Your task to perform on an android device: turn off notifications settings in the gmail app Image 0: 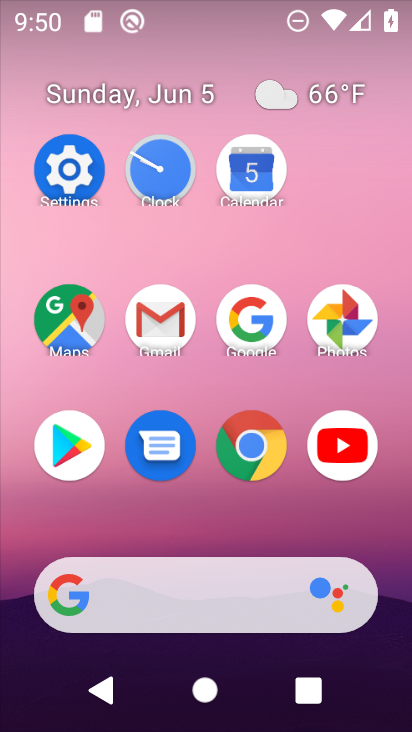
Step 0: click (162, 314)
Your task to perform on an android device: turn off notifications settings in the gmail app Image 1: 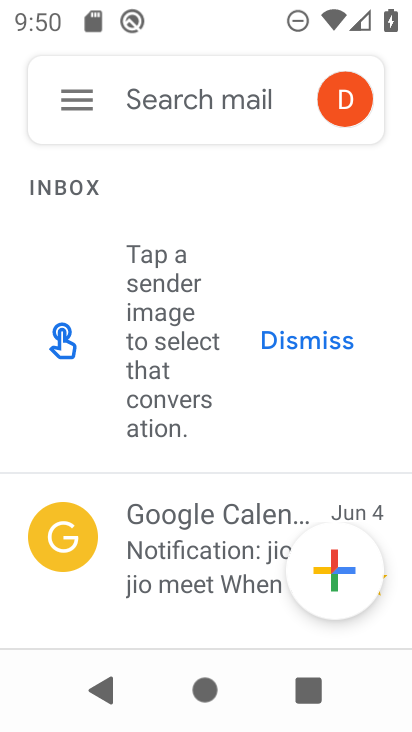
Step 1: click (63, 95)
Your task to perform on an android device: turn off notifications settings in the gmail app Image 2: 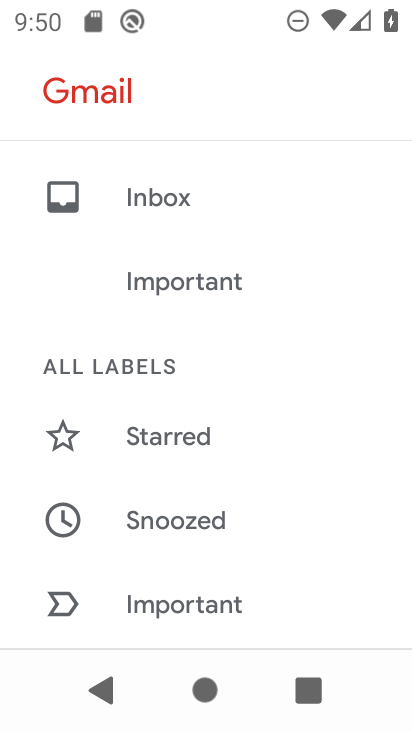
Step 2: drag from (235, 505) to (295, 136)
Your task to perform on an android device: turn off notifications settings in the gmail app Image 3: 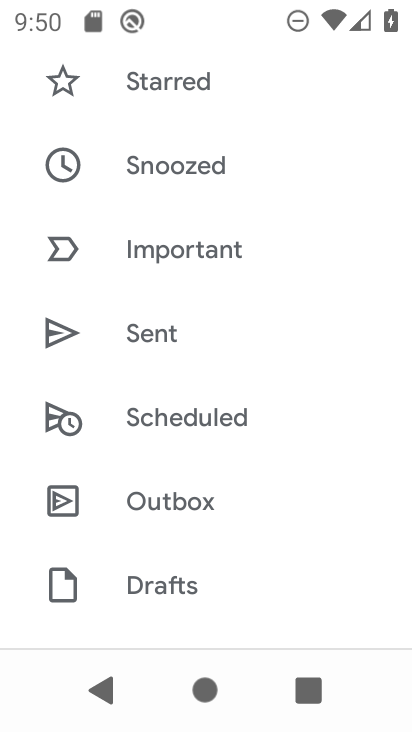
Step 3: drag from (245, 529) to (241, 180)
Your task to perform on an android device: turn off notifications settings in the gmail app Image 4: 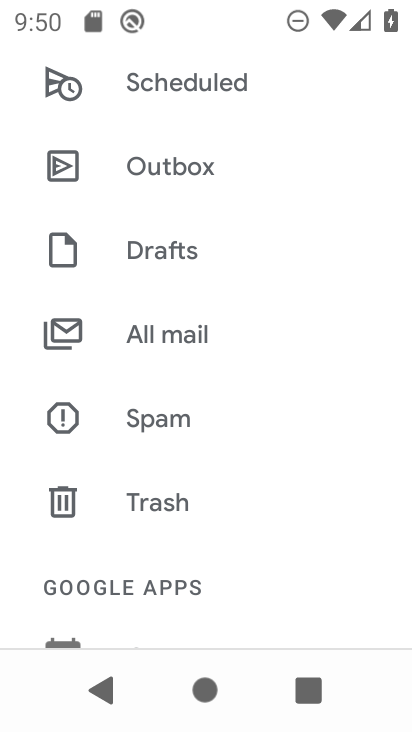
Step 4: drag from (233, 527) to (218, 173)
Your task to perform on an android device: turn off notifications settings in the gmail app Image 5: 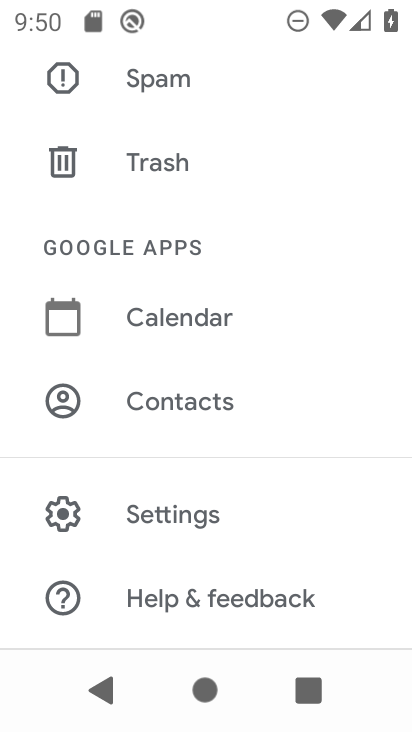
Step 5: click (183, 515)
Your task to perform on an android device: turn off notifications settings in the gmail app Image 6: 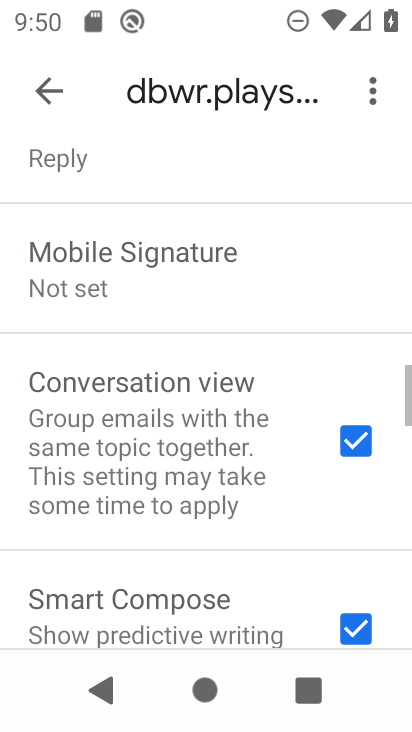
Step 6: drag from (183, 476) to (178, 111)
Your task to perform on an android device: turn off notifications settings in the gmail app Image 7: 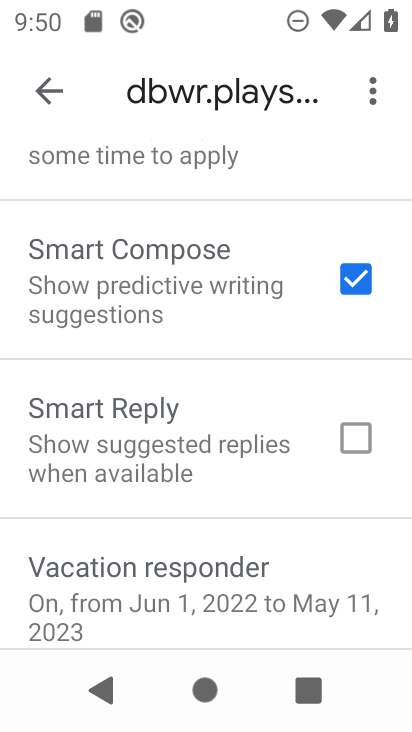
Step 7: drag from (225, 479) to (241, 132)
Your task to perform on an android device: turn off notifications settings in the gmail app Image 8: 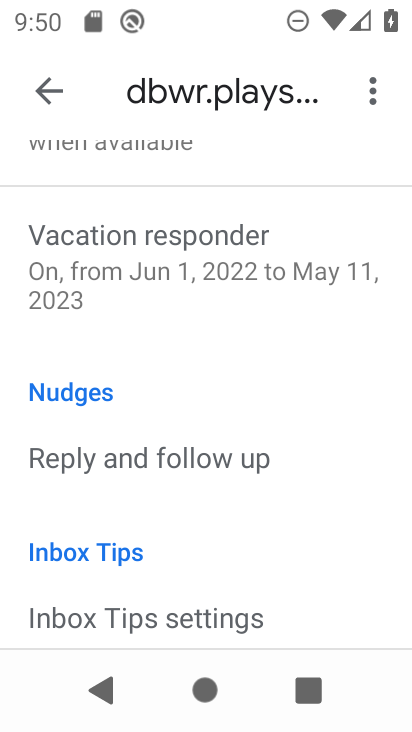
Step 8: drag from (296, 483) to (259, 107)
Your task to perform on an android device: turn off notifications settings in the gmail app Image 9: 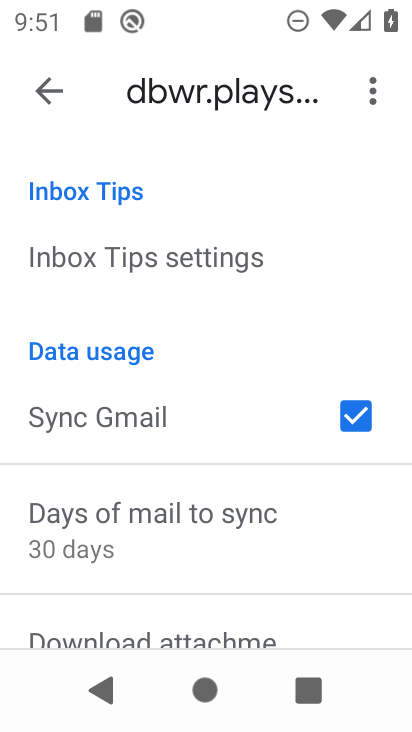
Step 9: drag from (264, 563) to (223, 233)
Your task to perform on an android device: turn off notifications settings in the gmail app Image 10: 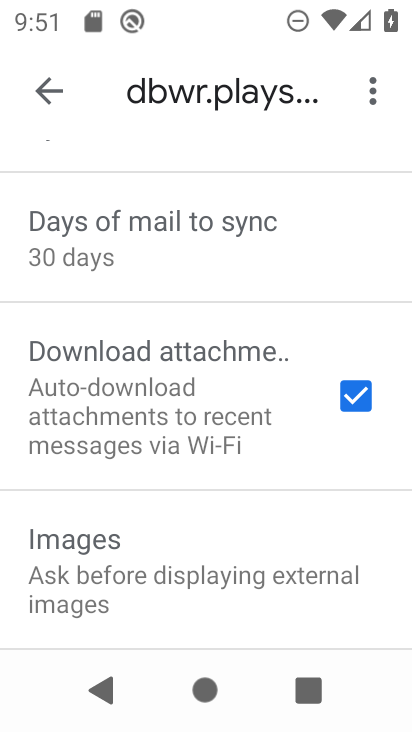
Step 10: drag from (245, 510) to (218, 215)
Your task to perform on an android device: turn off notifications settings in the gmail app Image 11: 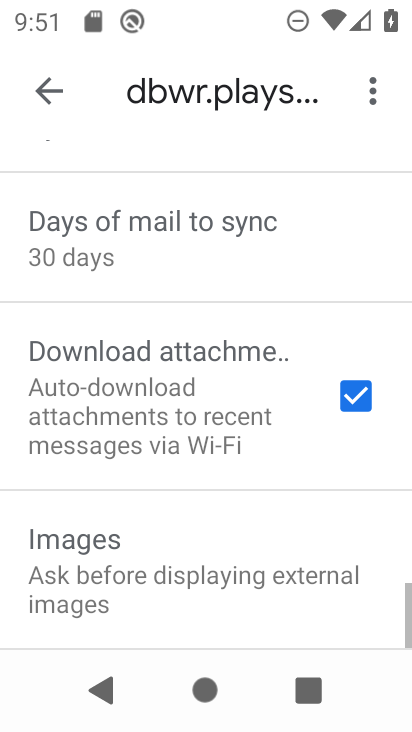
Step 11: drag from (238, 544) to (227, 197)
Your task to perform on an android device: turn off notifications settings in the gmail app Image 12: 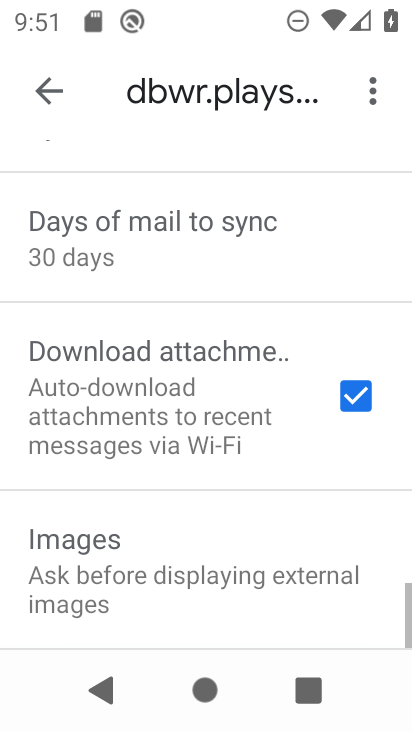
Step 12: drag from (233, 185) to (250, 574)
Your task to perform on an android device: turn off notifications settings in the gmail app Image 13: 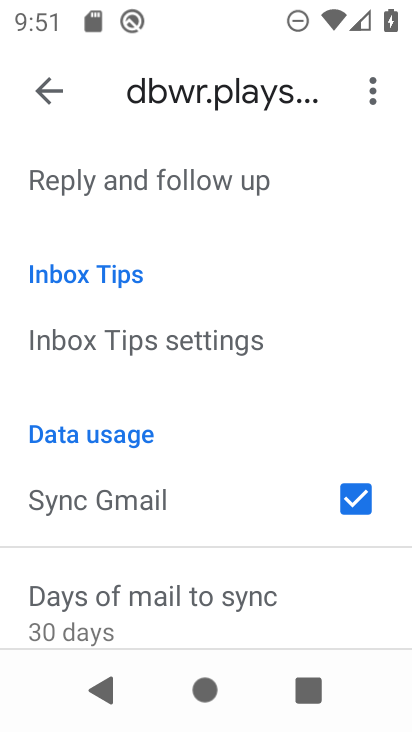
Step 13: drag from (255, 321) to (239, 662)
Your task to perform on an android device: turn off notifications settings in the gmail app Image 14: 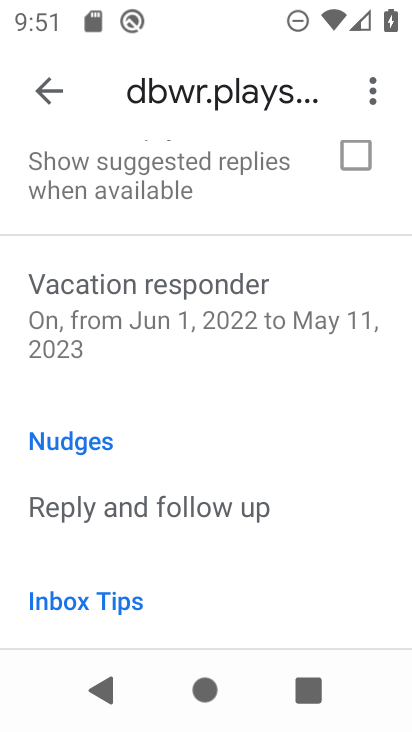
Step 14: drag from (203, 204) to (220, 579)
Your task to perform on an android device: turn off notifications settings in the gmail app Image 15: 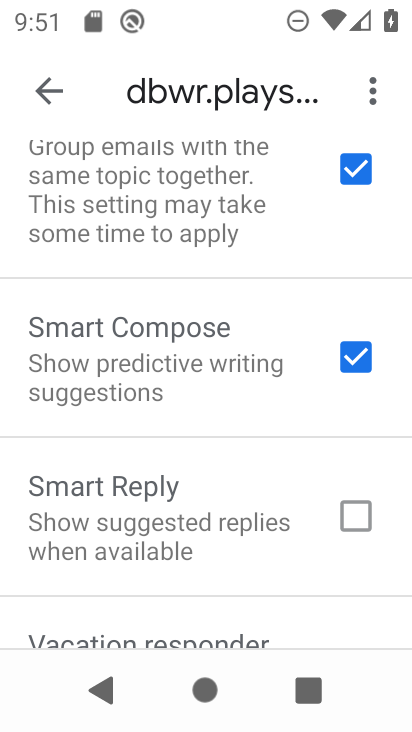
Step 15: drag from (225, 241) to (281, 611)
Your task to perform on an android device: turn off notifications settings in the gmail app Image 16: 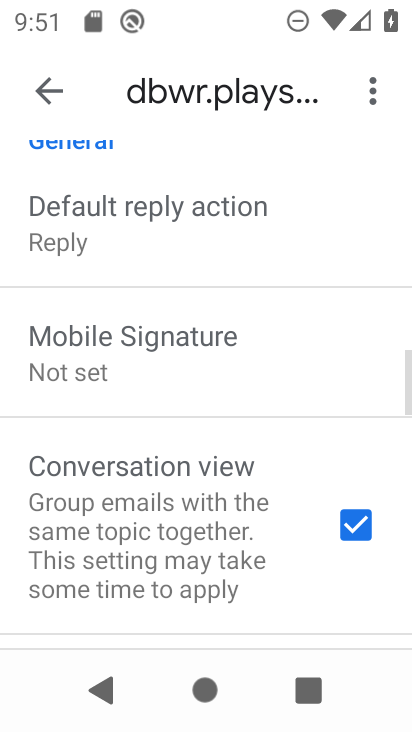
Step 16: drag from (274, 596) to (267, 639)
Your task to perform on an android device: turn off notifications settings in the gmail app Image 17: 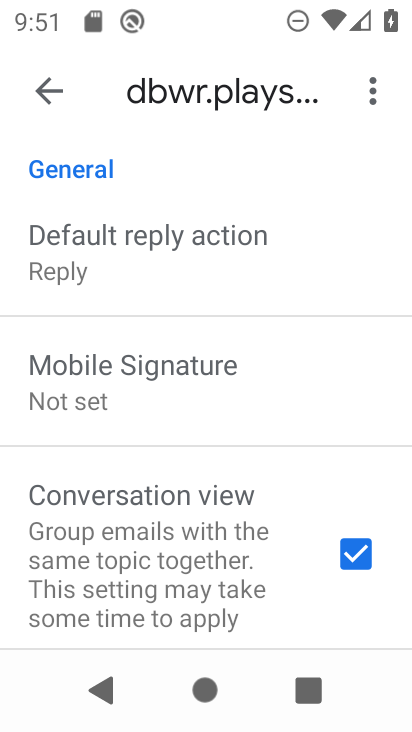
Step 17: drag from (219, 197) to (248, 575)
Your task to perform on an android device: turn off notifications settings in the gmail app Image 18: 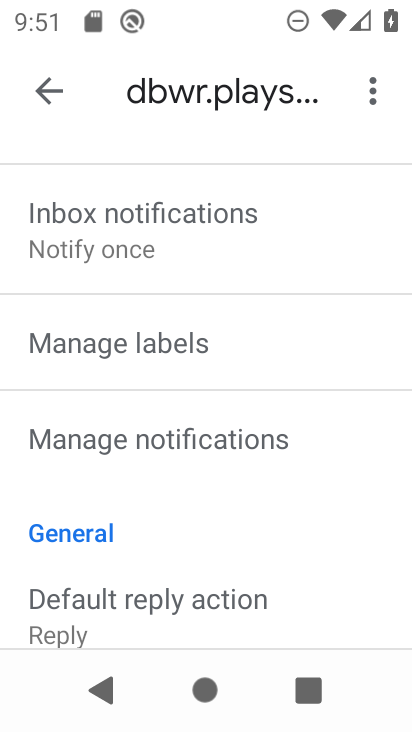
Step 18: click (215, 219)
Your task to perform on an android device: turn off notifications settings in the gmail app Image 19: 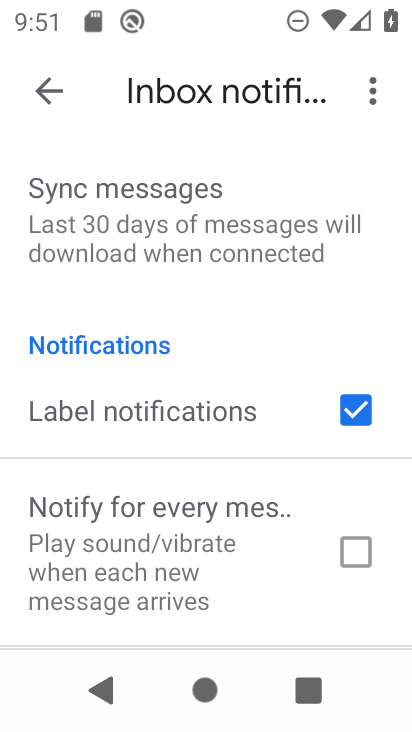
Step 19: click (75, 99)
Your task to perform on an android device: turn off notifications settings in the gmail app Image 20: 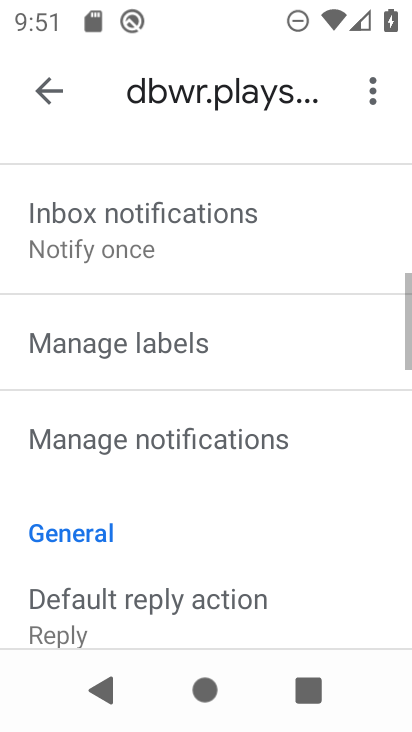
Step 20: drag from (278, 159) to (309, 486)
Your task to perform on an android device: turn off notifications settings in the gmail app Image 21: 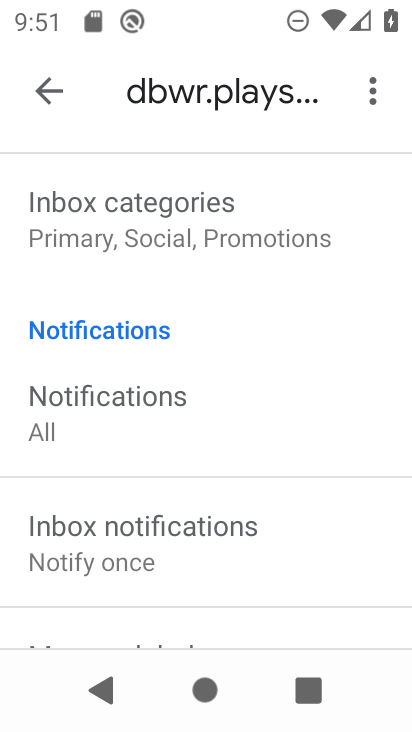
Step 21: click (264, 371)
Your task to perform on an android device: turn off notifications settings in the gmail app Image 22: 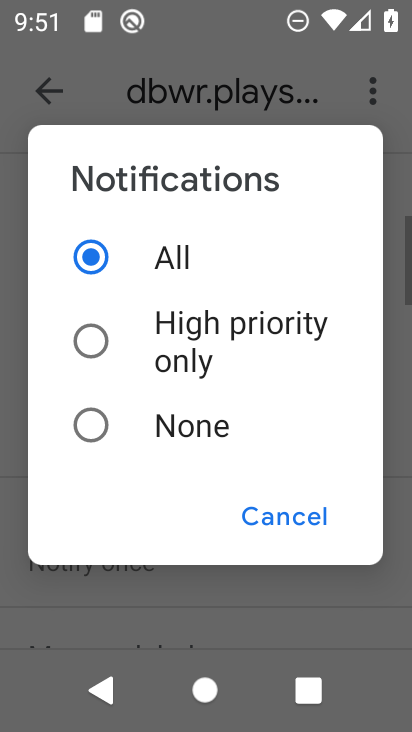
Step 22: click (203, 415)
Your task to perform on an android device: turn off notifications settings in the gmail app Image 23: 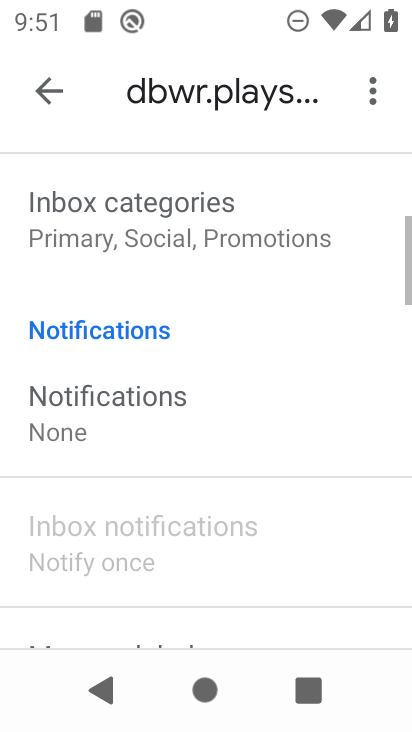
Step 23: task complete